Your task to perform on an android device: clear history in the chrome app Image 0: 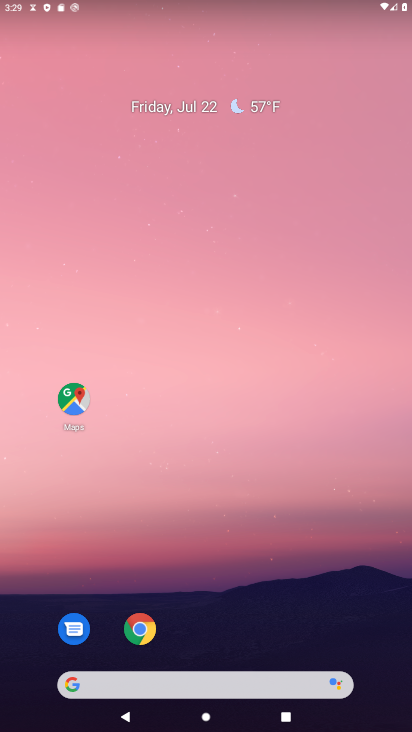
Step 0: drag from (126, 522) to (126, 324)
Your task to perform on an android device: clear history in the chrome app Image 1: 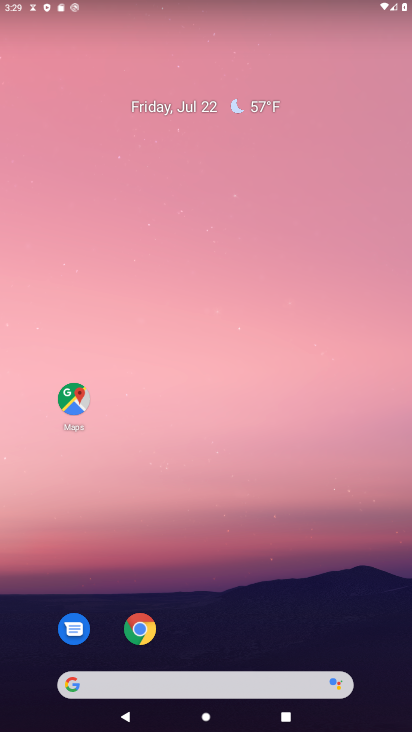
Step 1: drag from (210, 616) to (167, 57)
Your task to perform on an android device: clear history in the chrome app Image 2: 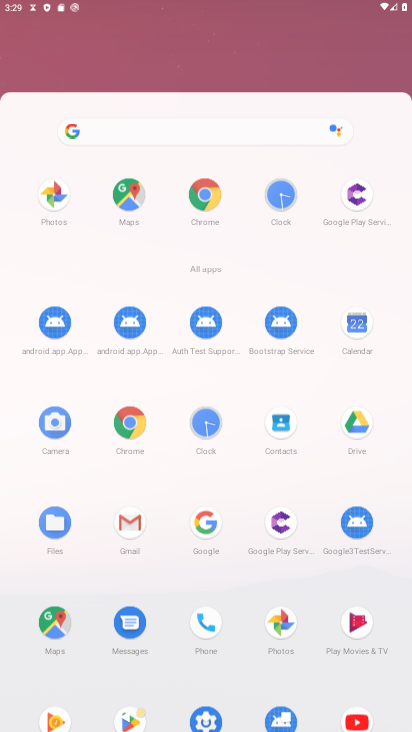
Step 2: drag from (150, 47) to (167, 11)
Your task to perform on an android device: clear history in the chrome app Image 3: 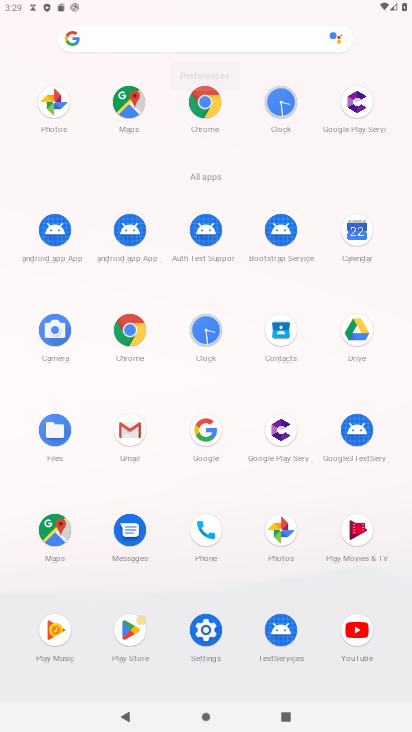
Step 3: drag from (163, 185) to (145, 45)
Your task to perform on an android device: clear history in the chrome app Image 4: 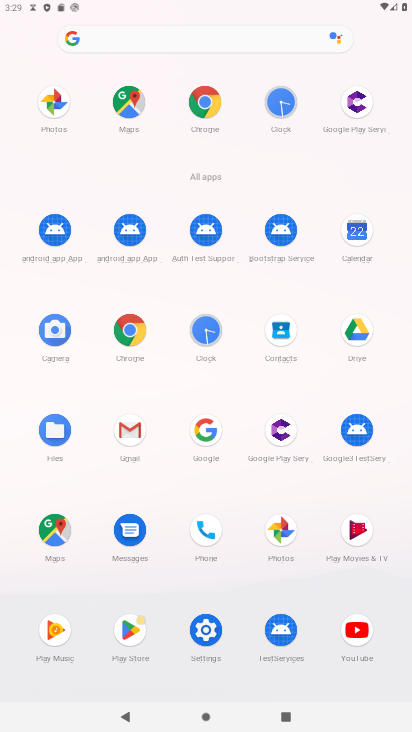
Step 4: click (207, 115)
Your task to perform on an android device: clear history in the chrome app Image 5: 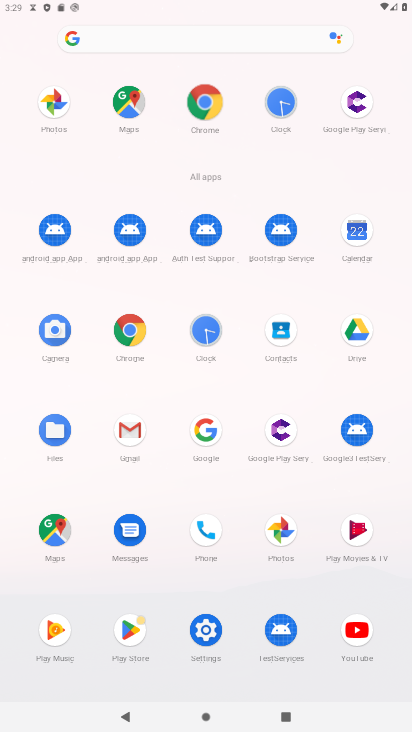
Step 5: click (211, 107)
Your task to perform on an android device: clear history in the chrome app Image 6: 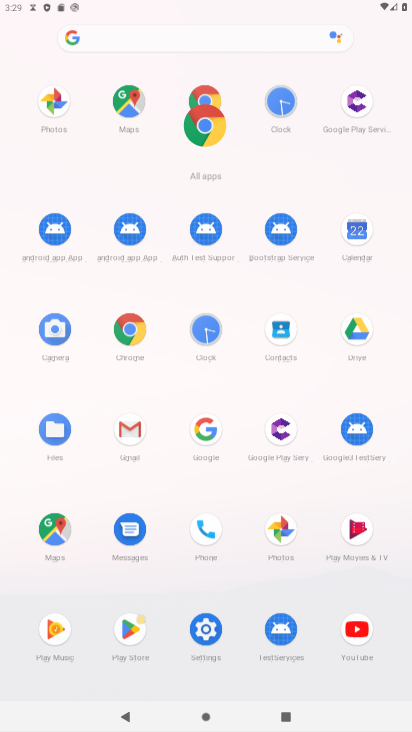
Step 6: click (212, 107)
Your task to perform on an android device: clear history in the chrome app Image 7: 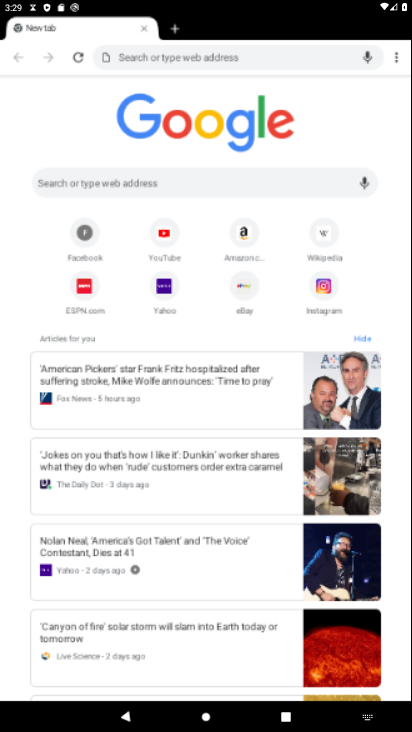
Step 7: click (191, 107)
Your task to perform on an android device: clear history in the chrome app Image 8: 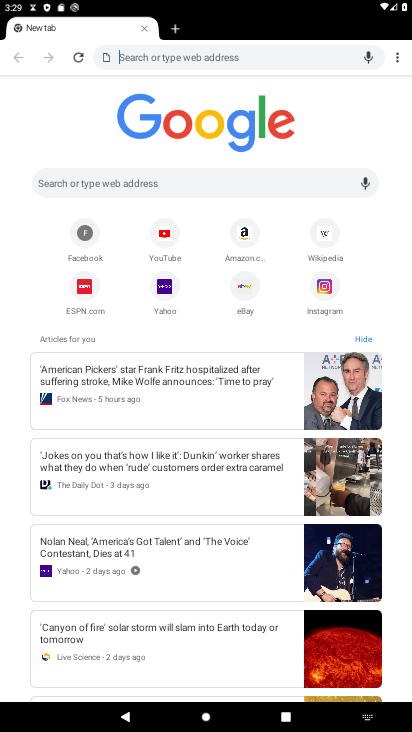
Step 8: drag from (395, 54) to (273, 180)
Your task to perform on an android device: clear history in the chrome app Image 9: 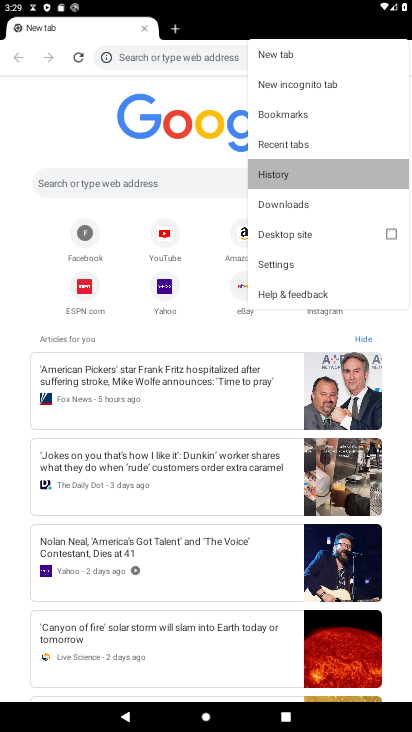
Step 9: click (270, 183)
Your task to perform on an android device: clear history in the chrome app Image 10: 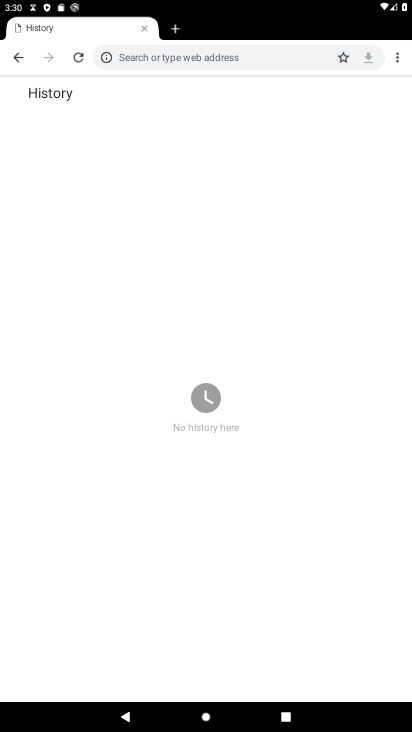
Step 10: press back button
Your task to perform on an android device: clear history in the chrome app Image 11: 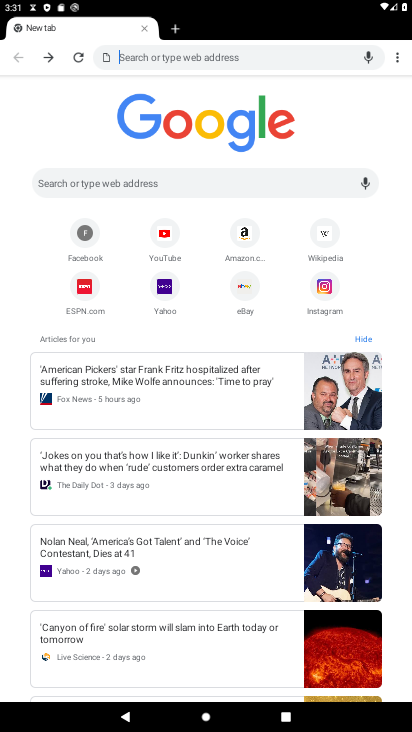
Step 11: click (401, 59)
Your task to perform on an android device: clear history in the chrome app Image 12: 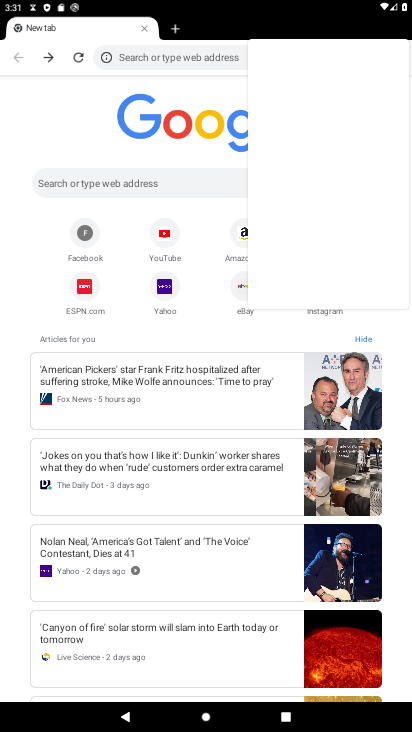
Step 12: click (396, 56)
Your task to perform on an android device: clear history in the chrome app Image 13: 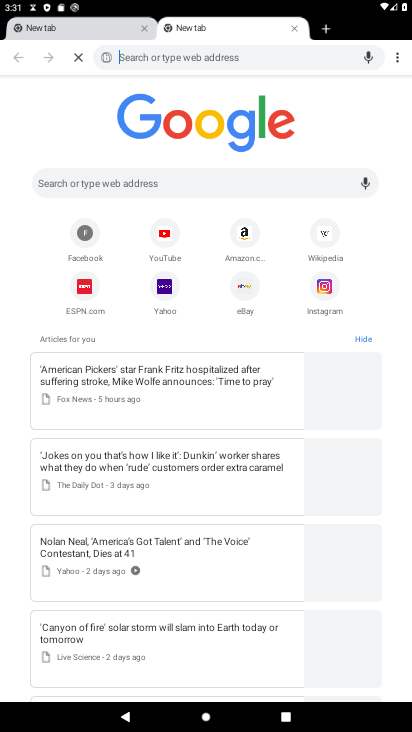
Step 13: click (397, 57)
Your task to perform on an android device: clear history in the chrome app Image 14: 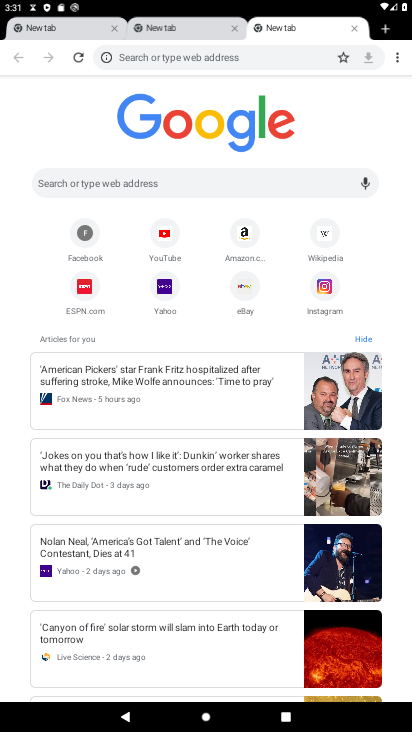
Step 14: click (395, 62)
Your task to perform on an android device: clear history in the chrome app Image 15: 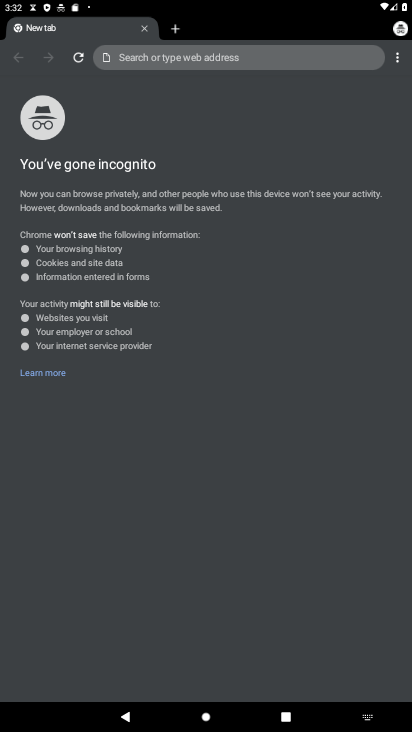
Step 15: click (389, 54)
Your task to perform on an android device: clear history in the chrome app Image 16: 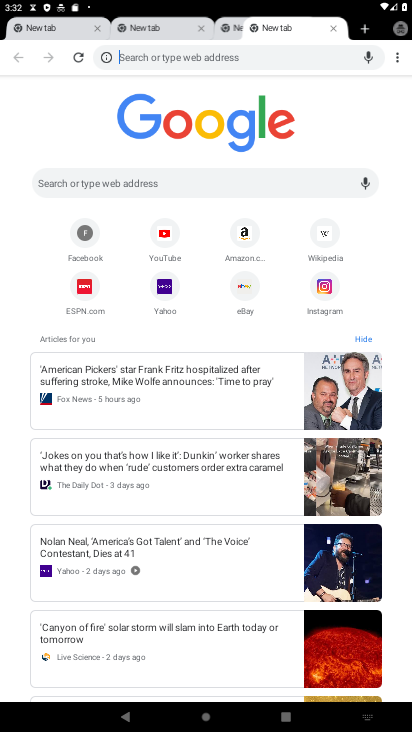
Step 16: drag from (396, 60) to (281, 255)
Your task to perform on an android device: clear history in the chrome app Image 17: 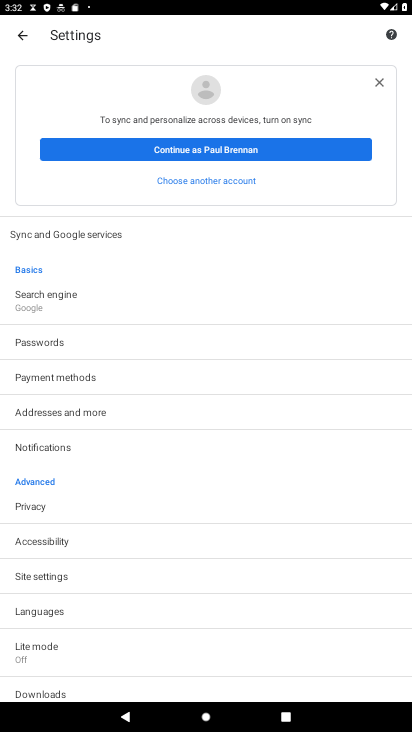
Step 17: click (13, 36)
Your task to perform on an android device: clear history in the chrome app Image 18: 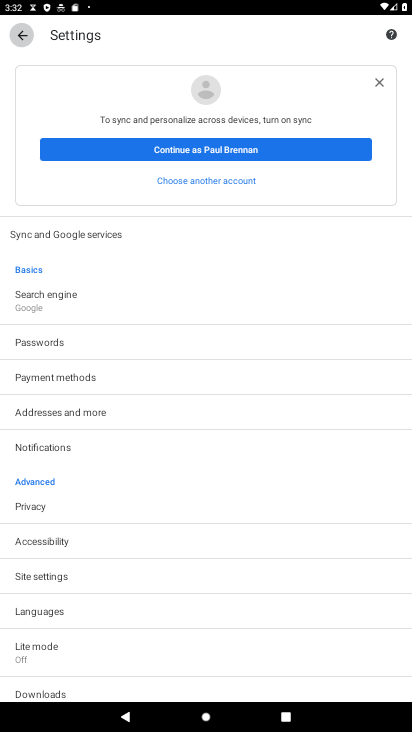
Step 18: click (13, 36)
Your task to perform on an android device: clear history in the chrome app Image 19: 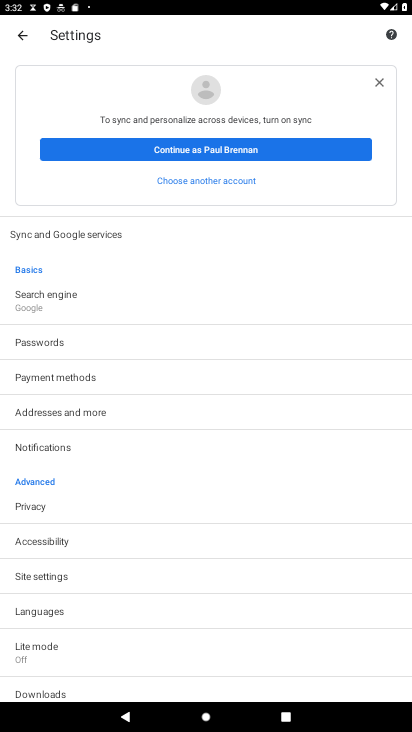
Step 19: click (20, 36)
Your task to perform on an android device: clear history in the chrome app Image 20: 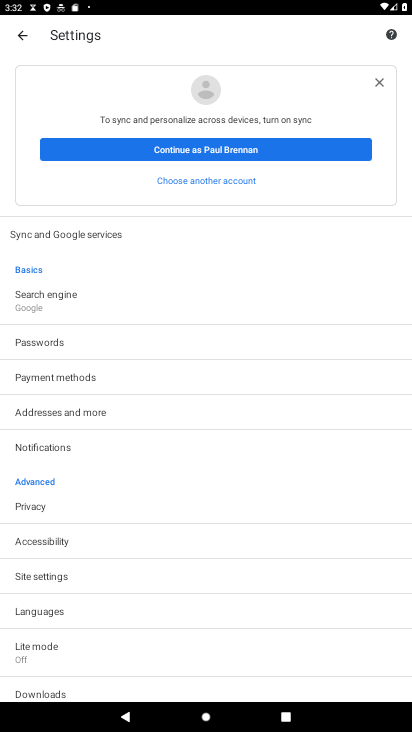
Step 20: click (20, 36)
Your task to perform on an android device: clear history in the chrome app Image 21: 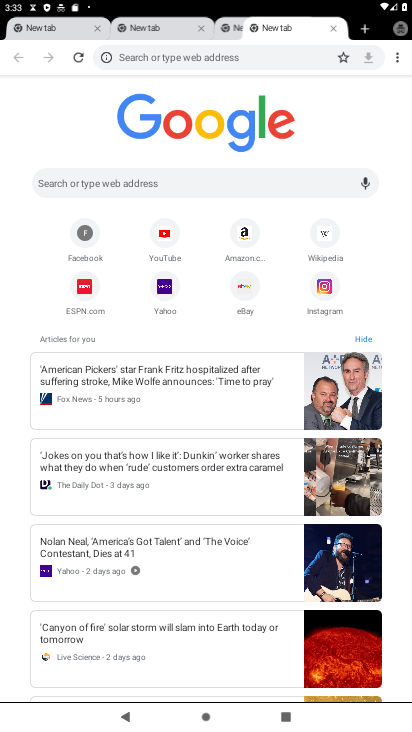
Step 21: click (386, 61)
Your task to perform on an android device: clear history in the chrome app Image 22: 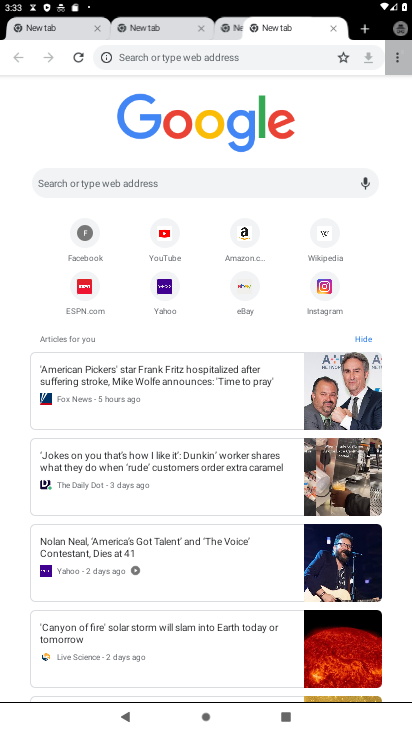
Step 22: click (387, 60)
Your task to perform on an android device: clear history in the chrome app Image 23: 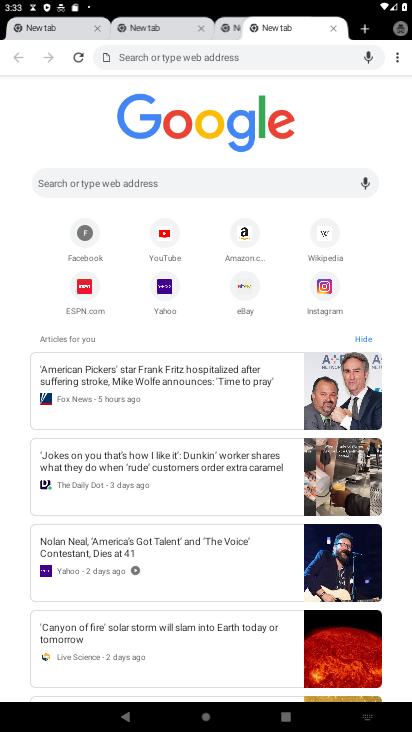
Step 23: click (399, 60)
Your task to perform on an android device: clear history in the chrome app Image 24: 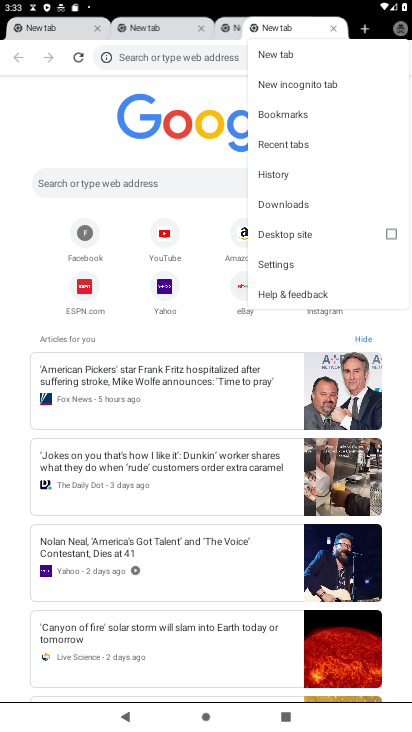
Step 24: click (397, 61)
Your task to perform on an android device: clear history in the chrome app Image 25: 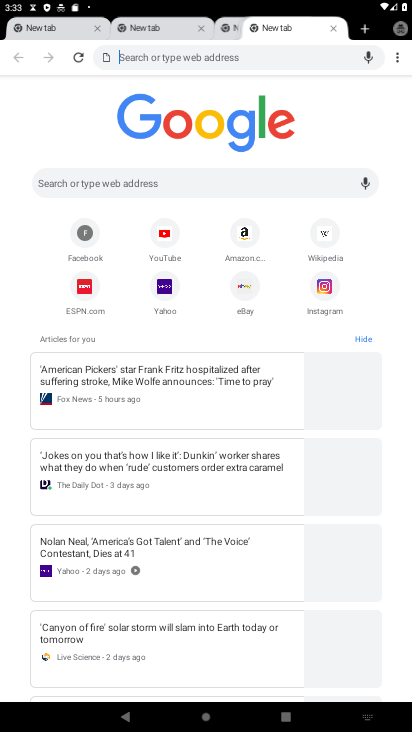
Step 25: click (281, 173)
Your task to perform on an android device: clear history in the chrome app Image 26: 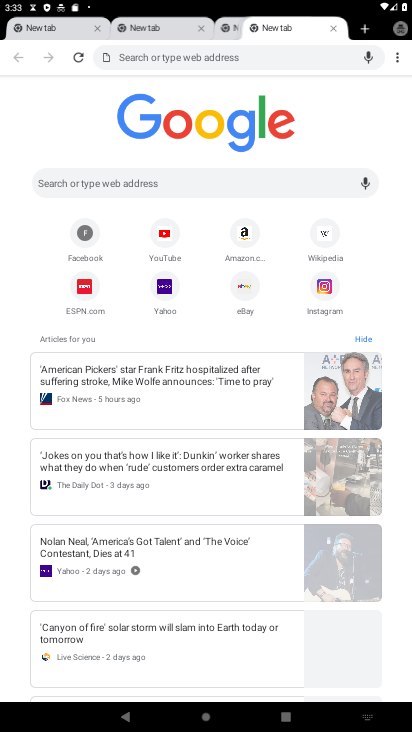
Step 26: click (281, 173)
Your task to perform on an android device: clear history in the chrome app Image 27: 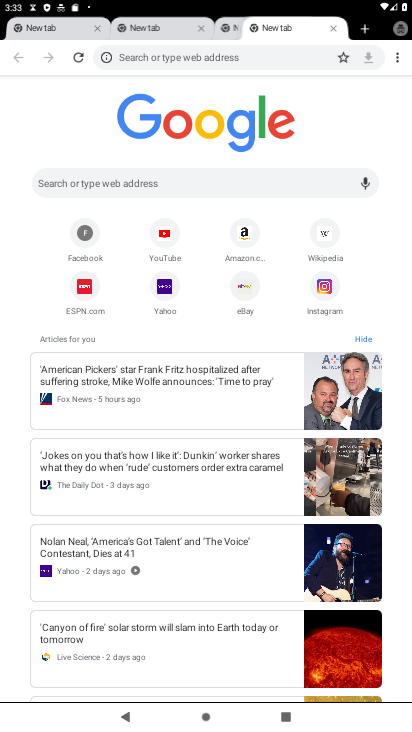
Step 27: task complete